Your task to perform on an android device: turn off smart reply in the gmail app Image 0: 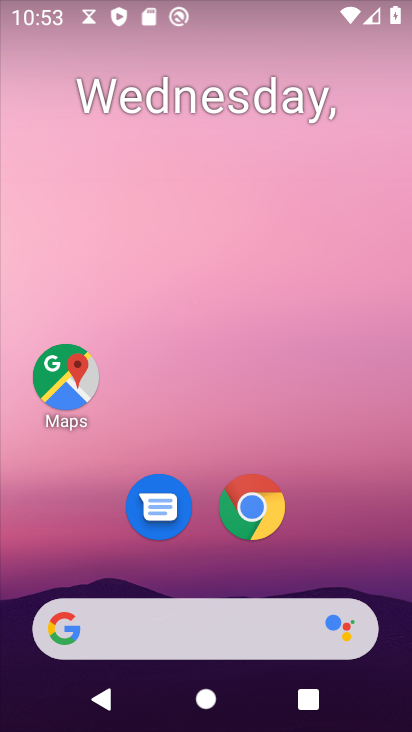
Step 0: press home button
Your task to perform on an android device: turn off smart reply in the gmail app Image 1: 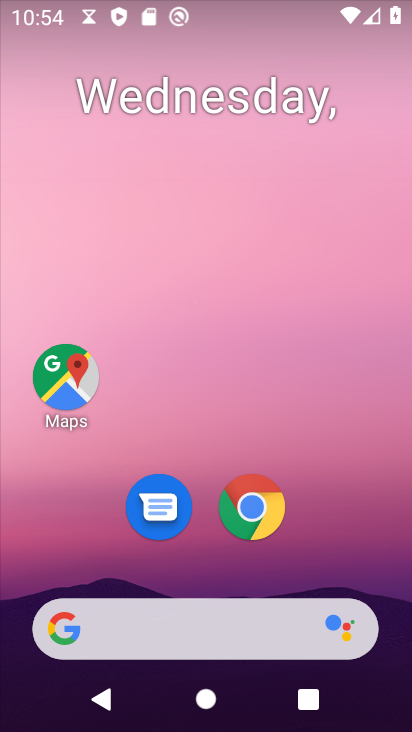
Step 1: drag from (264, 674) to (284, 133)
Your task to perform on an android device: turn off smart reply in the gmail app Image 2: 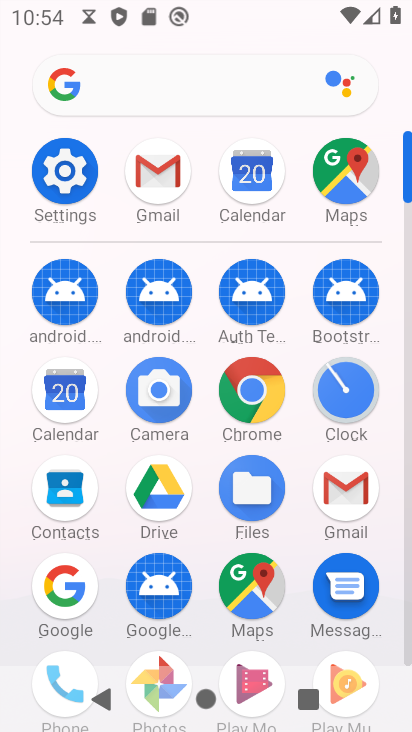
Step 2: click (174, 170)
Your task to perform on an android device: turn off smart reply in the gmail app Image 3: 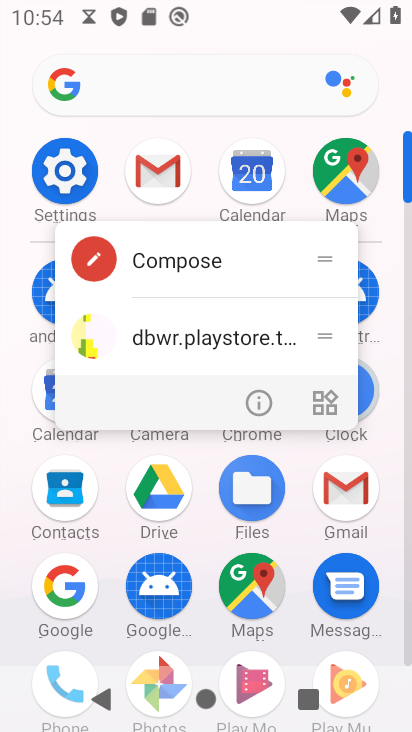
Step 3: click (174, 170)
Your task to perform on an android device: turn off smart reply in the gmail app Image 4: 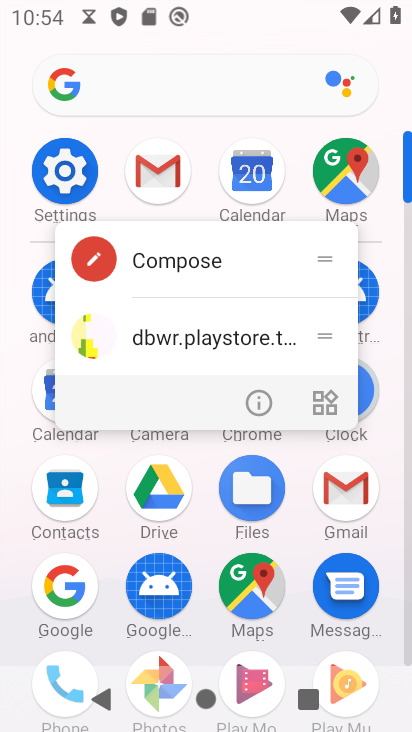
Step 4: click (156, 173)
Your task to perform on an android device: turn off smart reply in the gmail app Image 5: 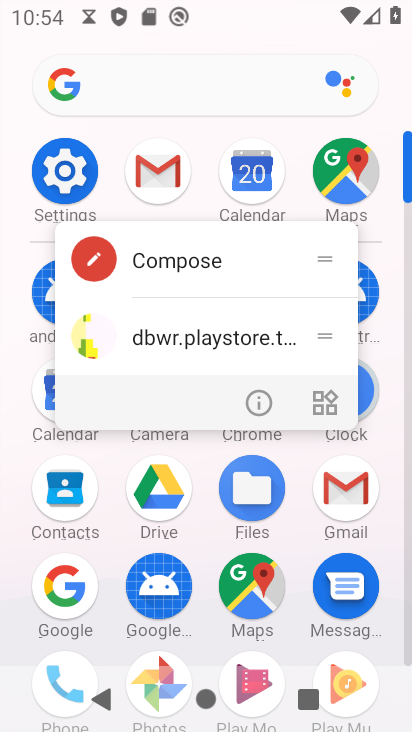
Step 5: click (157, 169)
Your task to perform on an android device: turn off smart reply in the gmail app Image 6: 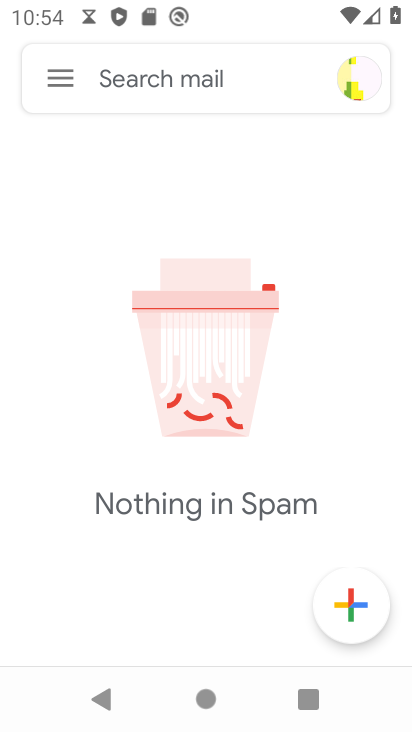
Step 6: click (61, 83)
Your task to perform on an android device: turn off smart reply in the gmail app Image 7: 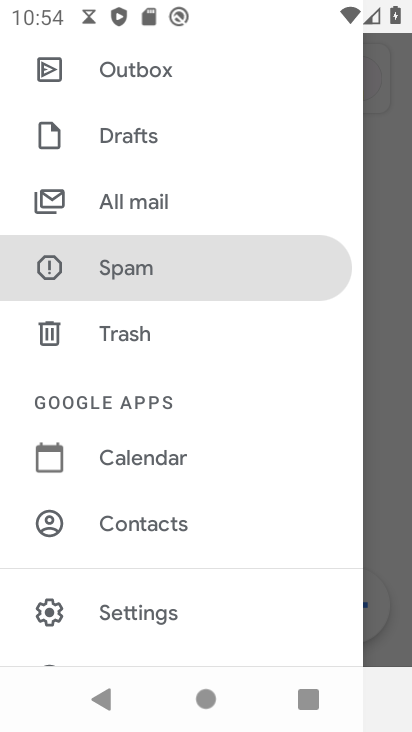
Step 7: click (123, 612)
Your task to perform on an android device: turn off smart reply in the gmail app Image 8: 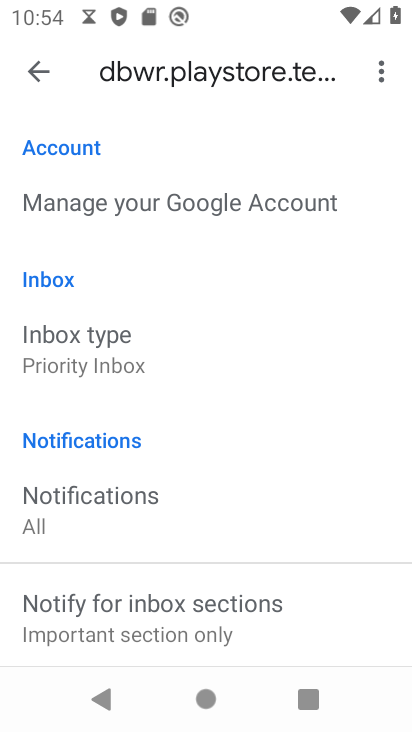
Step 8: drag from (171, 593) to (201, 127)
Your task to perform on an android device: turn off smart reply in the gmail app Image 9: 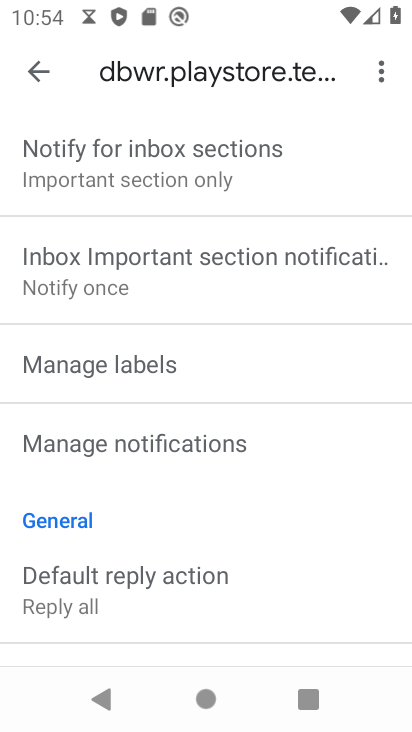
Step 9: drag from (159, 570) to (167, 190)
Your task to perform on an android device: turn off smart reply in the gmail app Image 10: 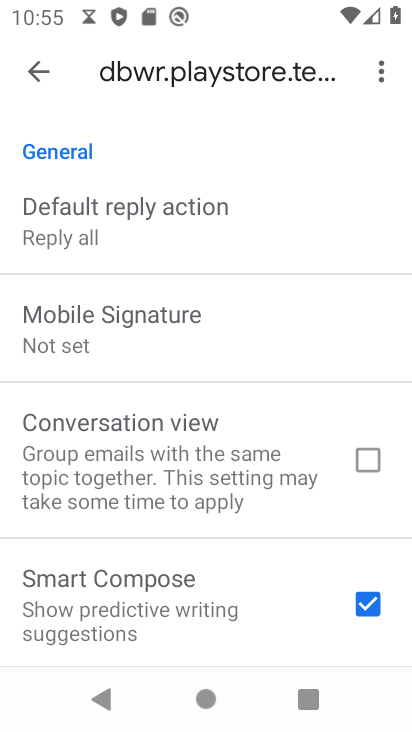
Step 10: drag from (134, 453) to (206, 187)
Your task to perform on an android device: turn off smart reply in the gmail app Image 11: 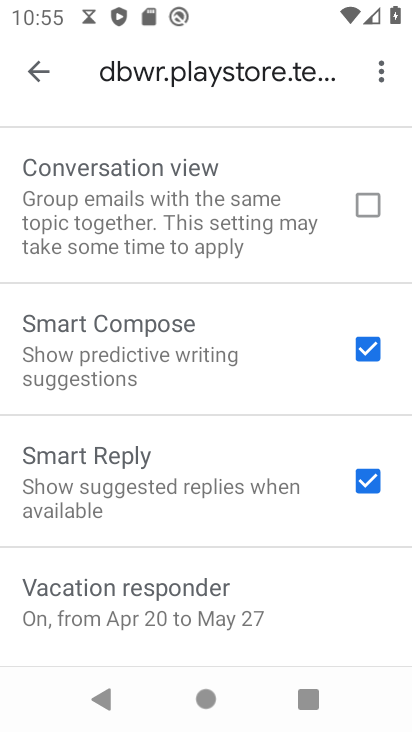
Step 11: click (346, 471)
Your task to perform on an android device: turn off smart reply in the gmail app Image 12: 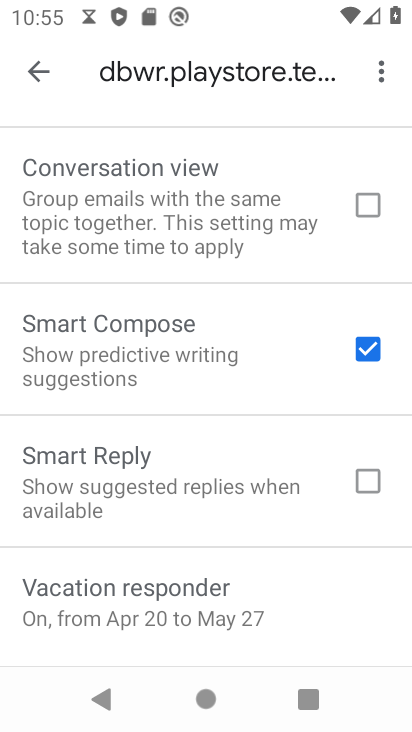
Step 12: task complete